Your task to perform on an android device: create a new album in the google photos Image 0: 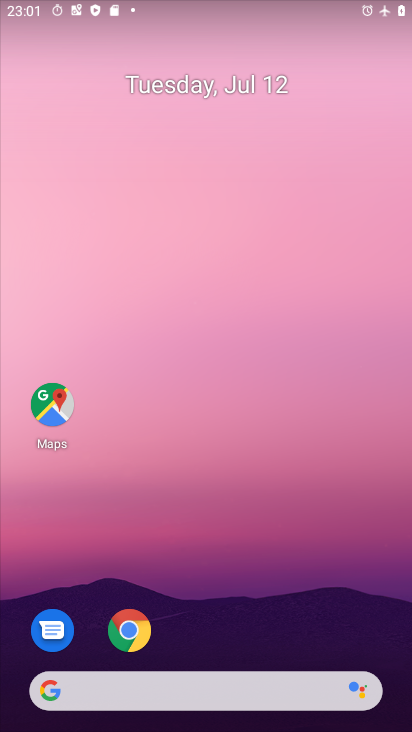
Step 0: drag from (245, 634) to (280, 82)
Your task to perform on an android device: create a new album in the google photos Image 1: 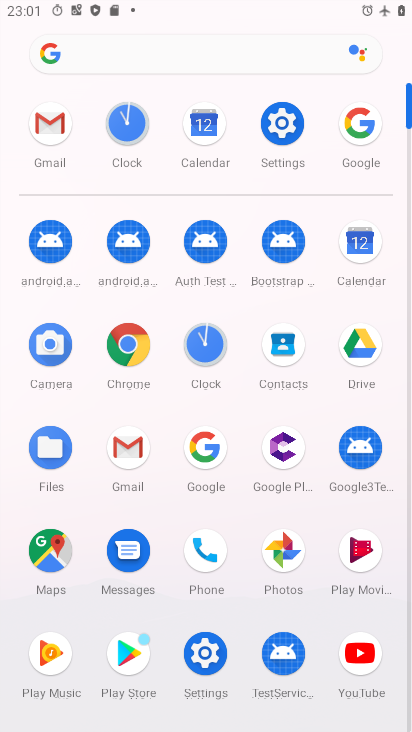
Step 1: click (280, 574)
Your task to perform on an android device: create a new album in the google photos Image 2: 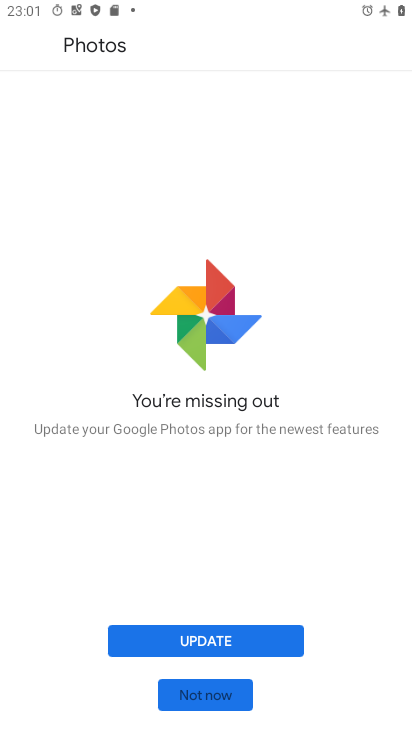
Step 2: click (187, 686)
Your task to perform on an android device: create a new album in the google photos Image 3: 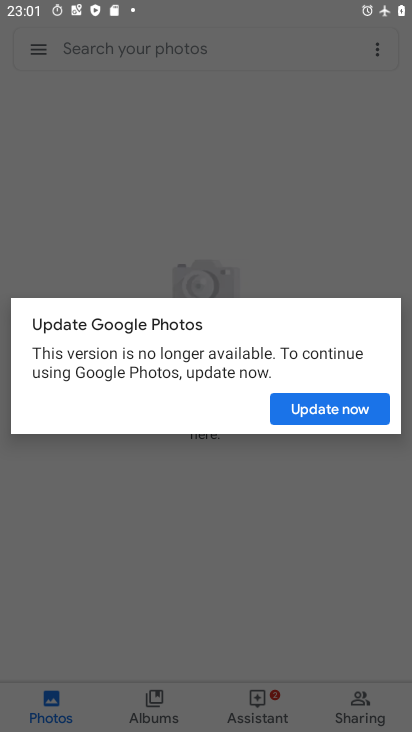
Step 3: click (302, 402)
Your task to perform on an android device: create a new album in the google photos Image 4: 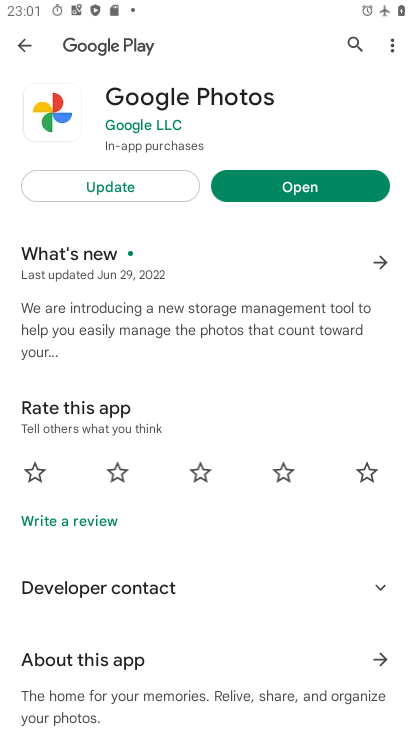
Step 4: click (306, 187)
Your task to perform on an android device: create a new album in the google photos Image 5: 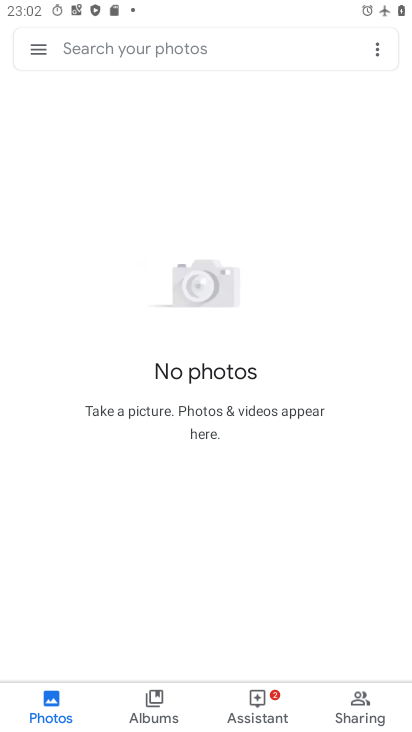
Step 5: click (143, 695)
Your task to perform on an android device: create a new album in the google photos Image 6: 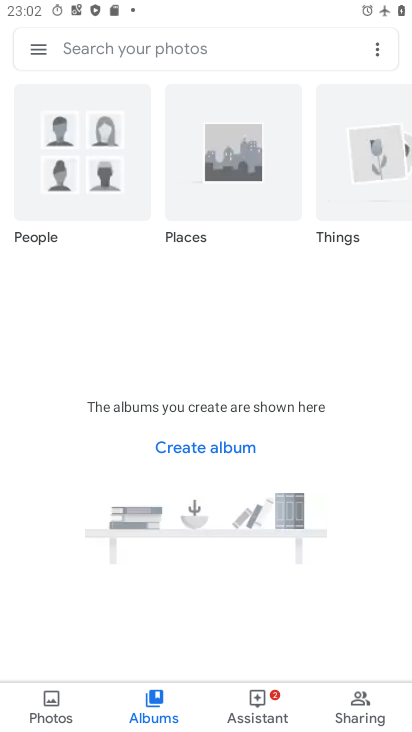
Step 6: click (185, 444)
Your task to perform on an android device: create a new album in the google photos Image 7: 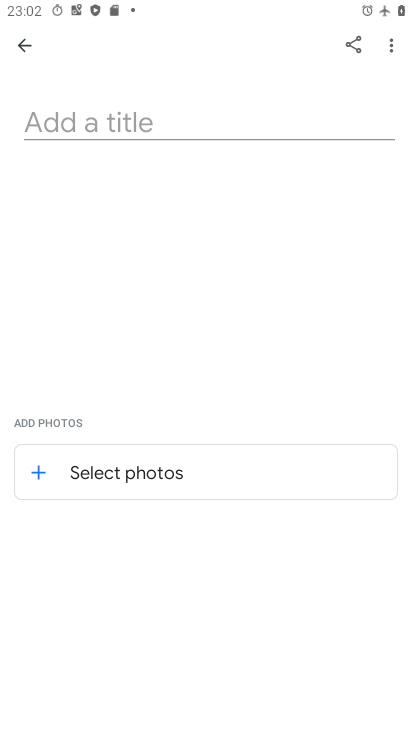
Step 7: click (88, 109)
Your task to perform on an android device: create a new album in the google photos Image 8: 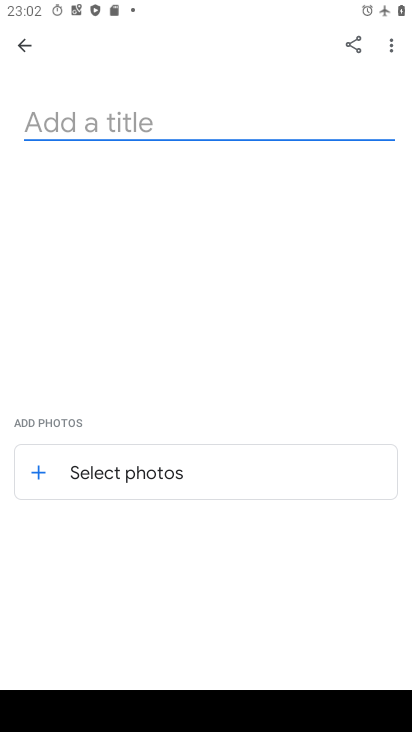
Step 8: type "bvv"
Your task to perform on an android device: create a new album in the google photos Image 9: 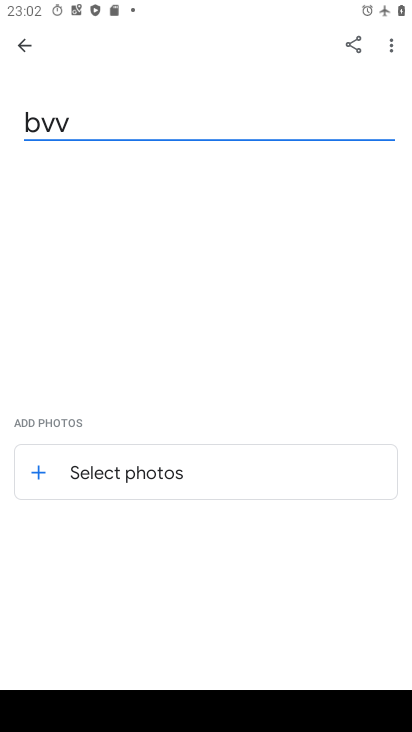
Step 9: click (156, 478)
Your task to perform on an android device: create a new album in the google photos Image 10: 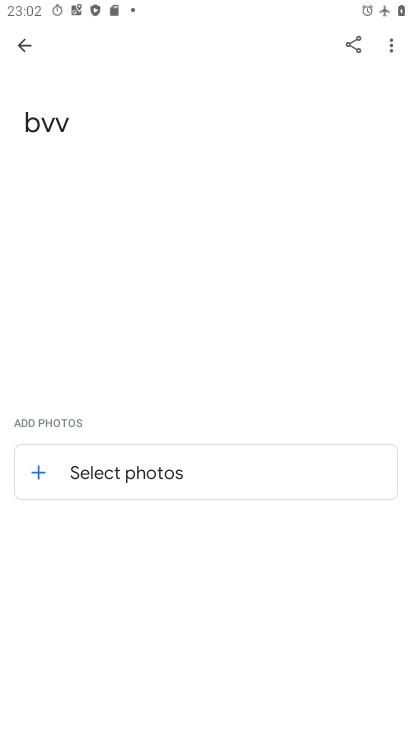
Step 10: click (97, 475)
Your task to perform on an android device: create a new album in the google photos Image 11: 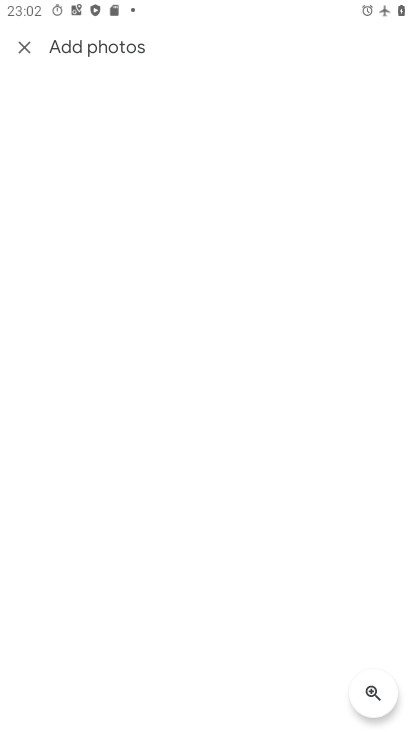
Step 11: task complete